Your task to perform on an android device: Open the stopwatch Image 0: 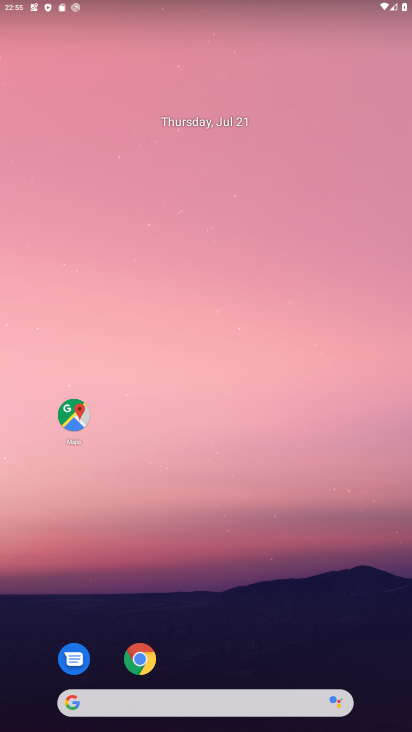
Step 0: drag from (308, 620) to (276, 37)
Your task to perform on an android device: Open the stopwatch Image 1: 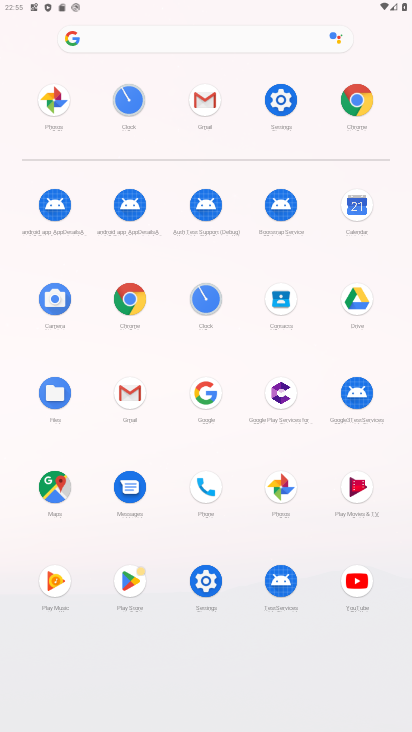
Step 1: click (198, 292)
Your task to perform on an android device: Open the stopwatch Image 2: 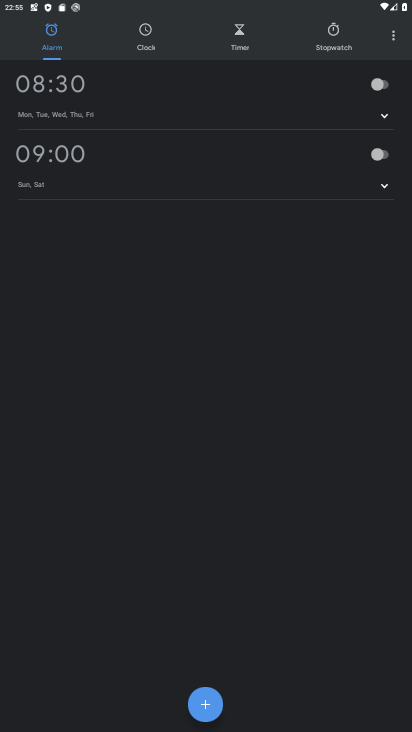
Step 2: click (344, 39)
Your task to perform on an android device: Open the stopwatch Image 3: 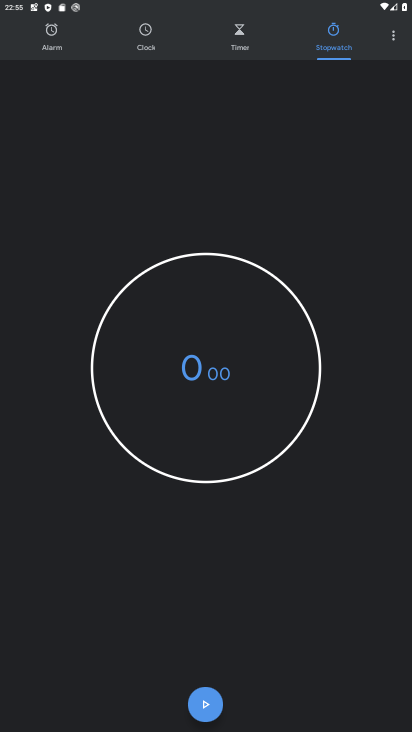
Step 3: task complete